Your task to perform on an android device: What's the weather today? Image 0: 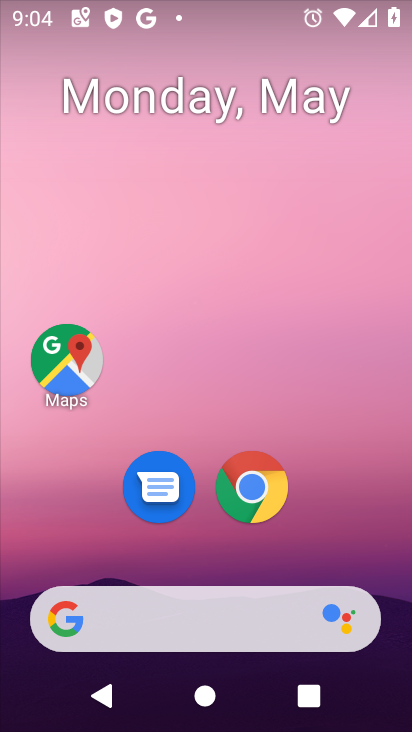
Step 0: click (162, 607)
Your task to perform on an android device: What's the weather today? Image 1: 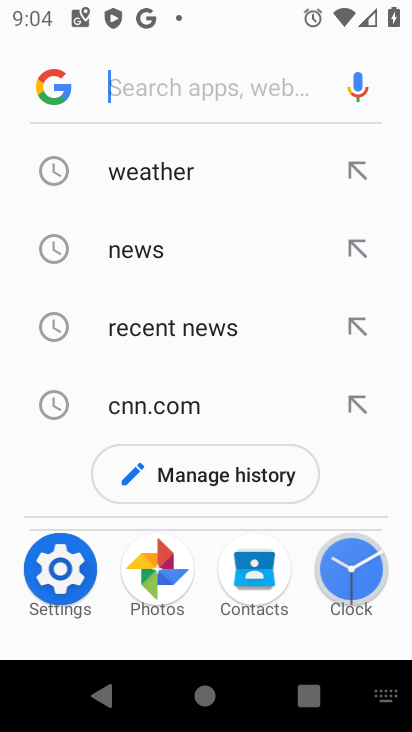
Step 1: click (115, 170)
Your task to perform on an android device: What's the weather today? Image 2: 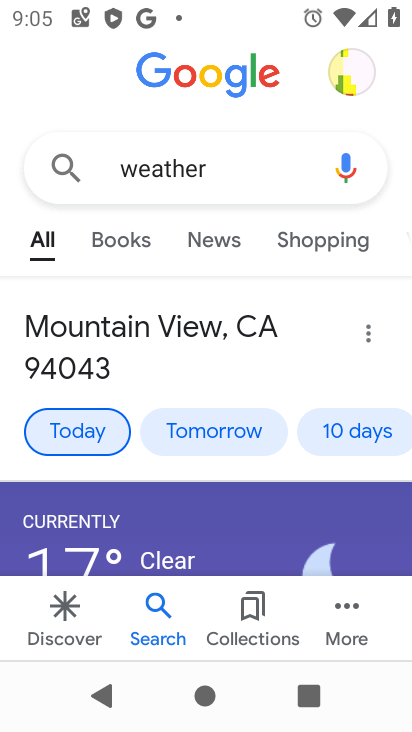
Step 2: task complete